Your task to perform on an android device: toggle sleep mode Image 0: 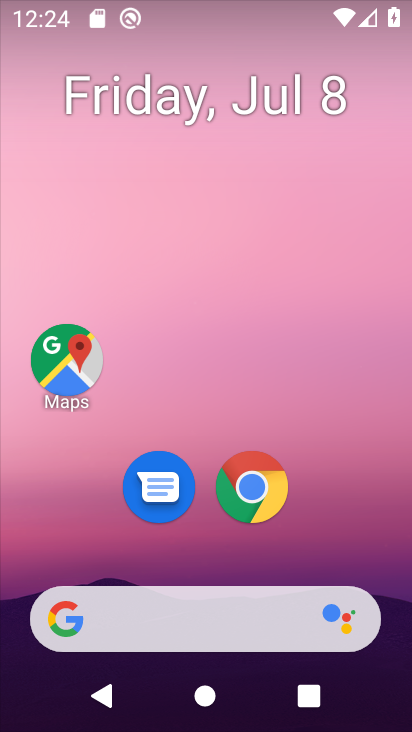
Step 0: drag from (379, 550) to (387, 185)
Your task to perform on an android device: toggle sleep mode Image 1: 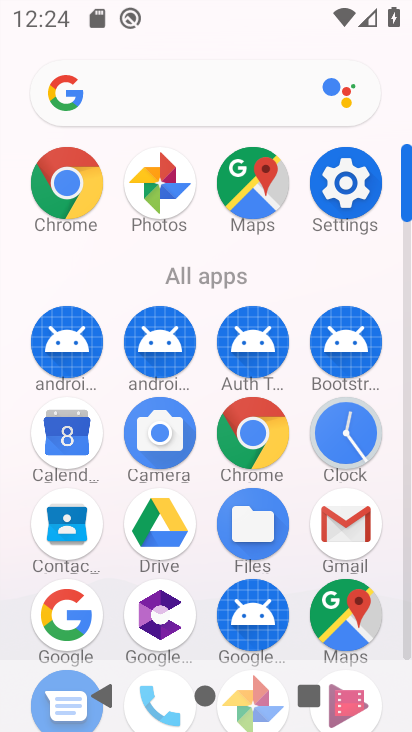
Step 1: click (355, 197)
Your task to perform on an android device: toggle sleep mode Image 2: 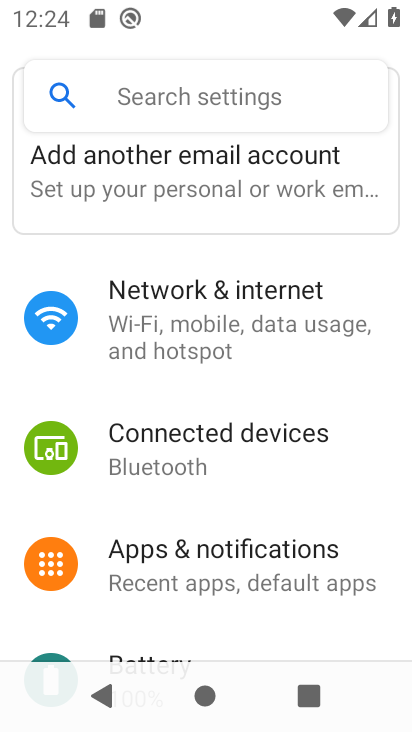
Step 2: drag from (384, 502) to (384, 390)
Your task to perform on an android device: toggle sleep mode Image 3: 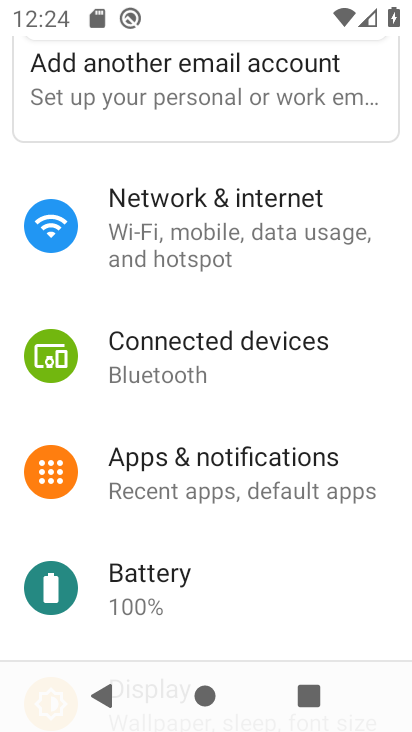
Step 3: drag from (362, 543) to (362, 425)
Your task to perform on an android device: toggle sleep mode Image 4: 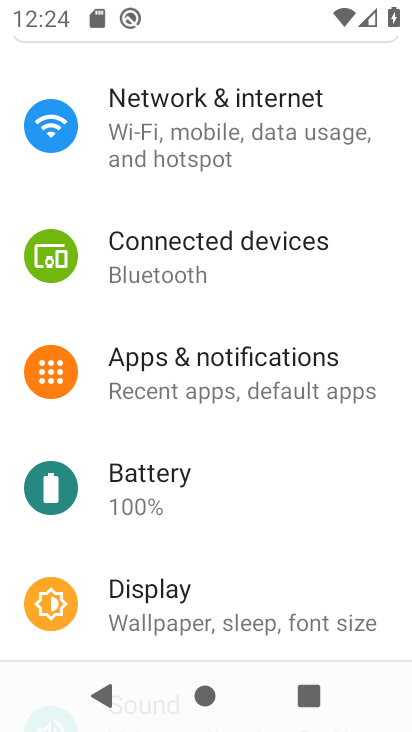
Step 4: drag from (372, 534) to (371, 439)
Your task to perform on an android device: toggle sleep mode Image 5: 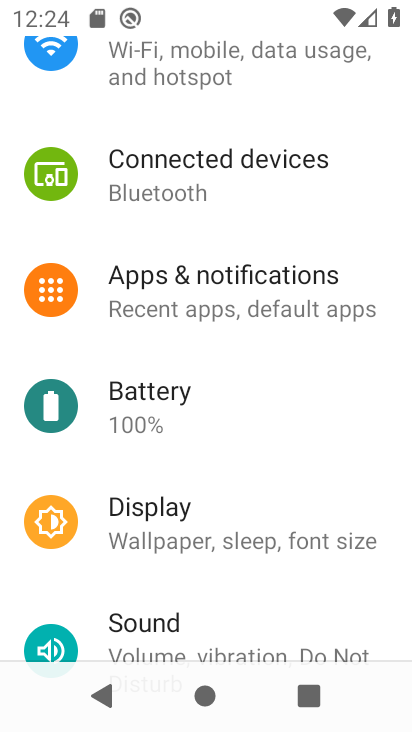
Step 5: drag from (364, 594) to (365, 477)
Your task to perform on an android device: toggle sleep mode Image 6: 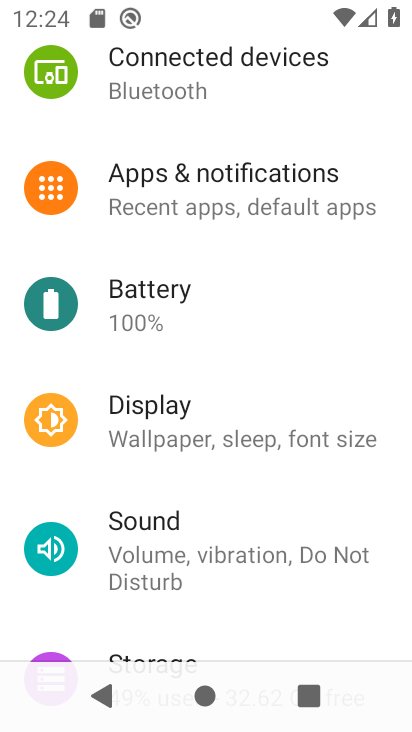
Step 6: drag from (371, 621) to (371, 494)
Your task to perform on an android device: toggle sleep mode Image 7: 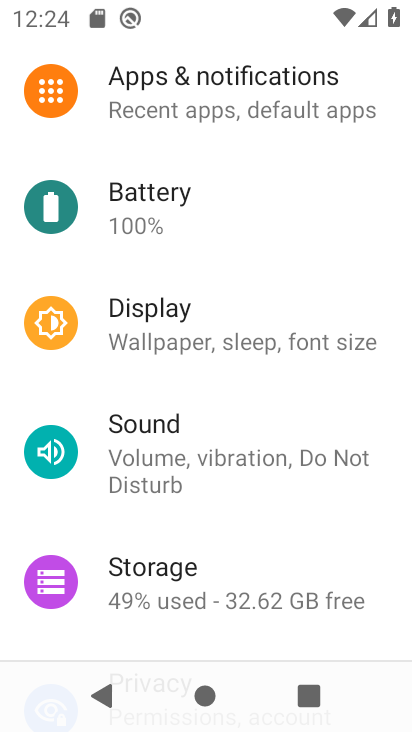
Step 7: drag from (355, 499) to (372, 380)
Your task to perform on an android device: toggle sleep mode Image 8: 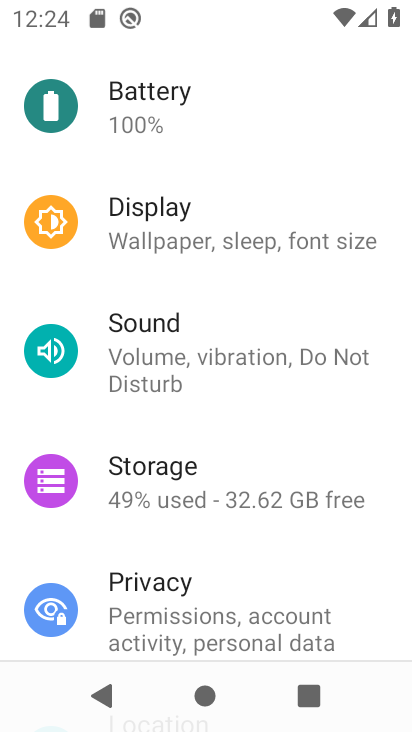
Step 8: click (275, 247)
Your task to perform on an android device: toggle sleep mode Image 9: 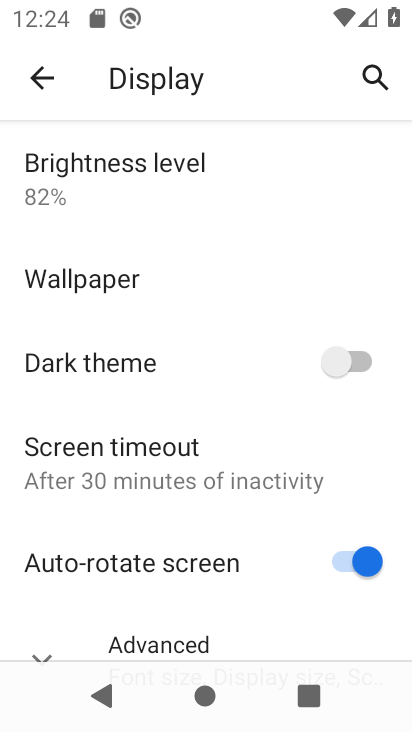
Step 9: drag from (266, 530) to (273, 401)
Your task to perform on an android device: toggle sleep mode Image 10: 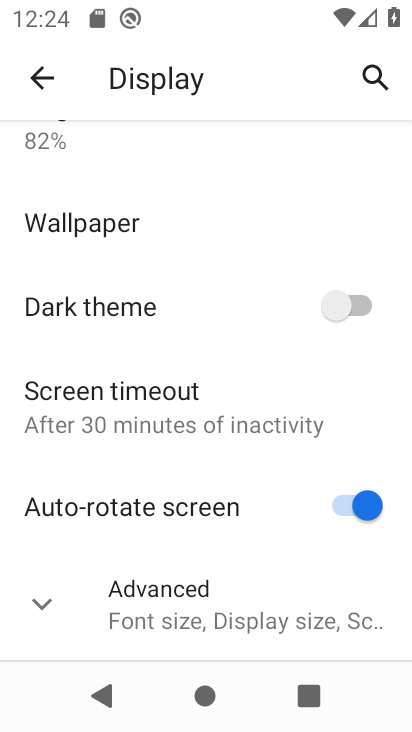
Step 10: click (257, 619)
Your task to perform on an android device: toggle sleep mode Image 11: 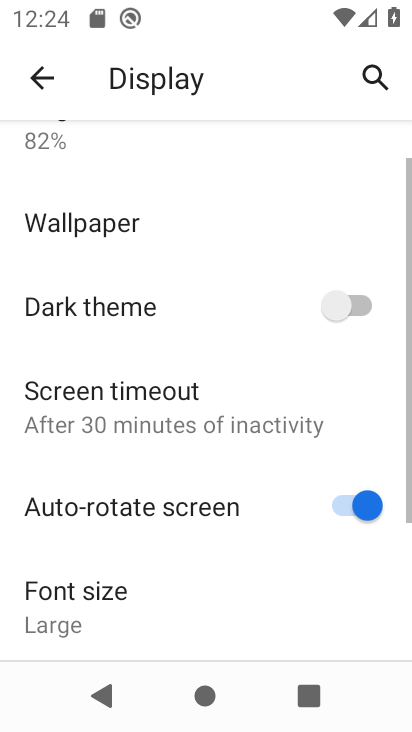
Step 11: task complete